Your task to perform on an android device: visit the assistant section in the google photos Image 0: 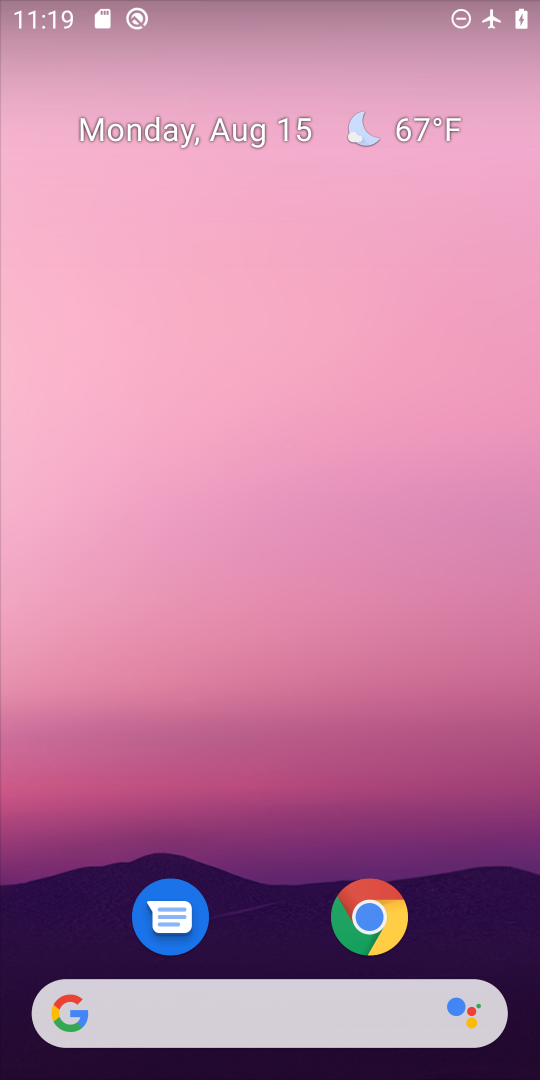
Step 0: drag from (272, 720) to (306, 74)
Your task to perform on an android device: visit the assistant section in the google photos Image 1: 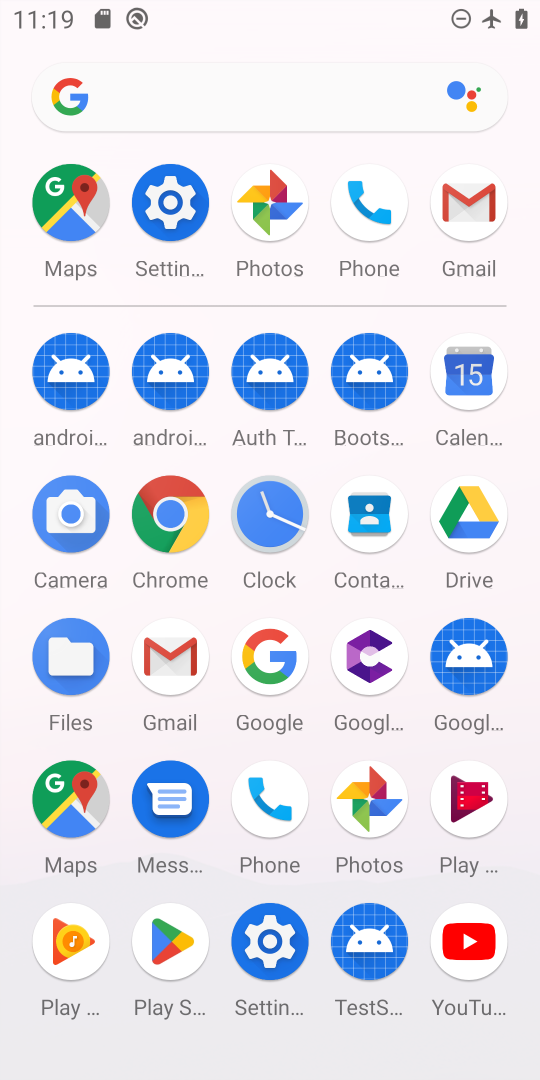
Step 1: click (286, 201)
Your task to perform on an android device: visit the assistant section in the google photos Image 2: 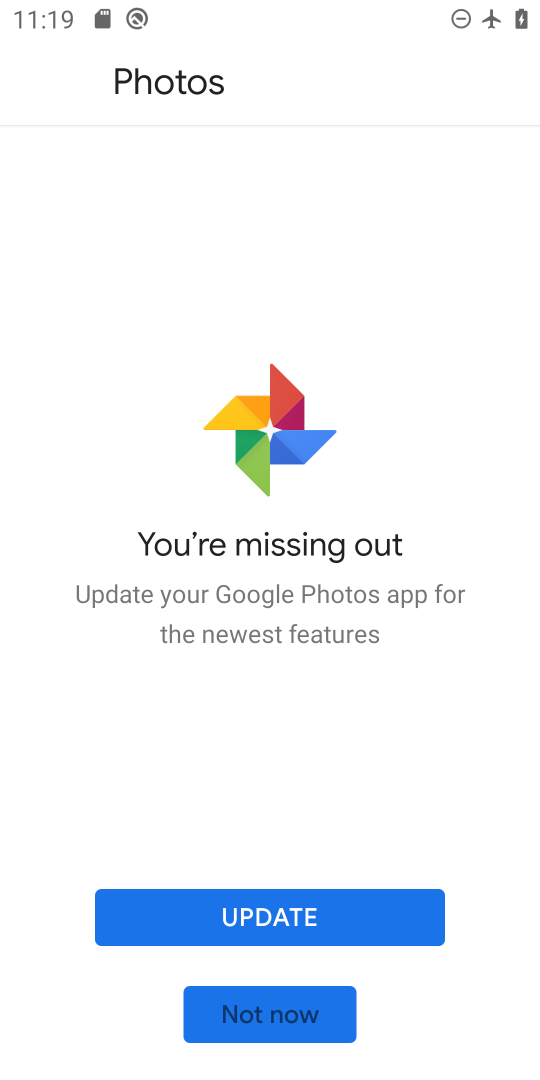
Step 2: click (271, 1016)
Your task to perform on an android device: visit the assistant section in the google photos Image 3: 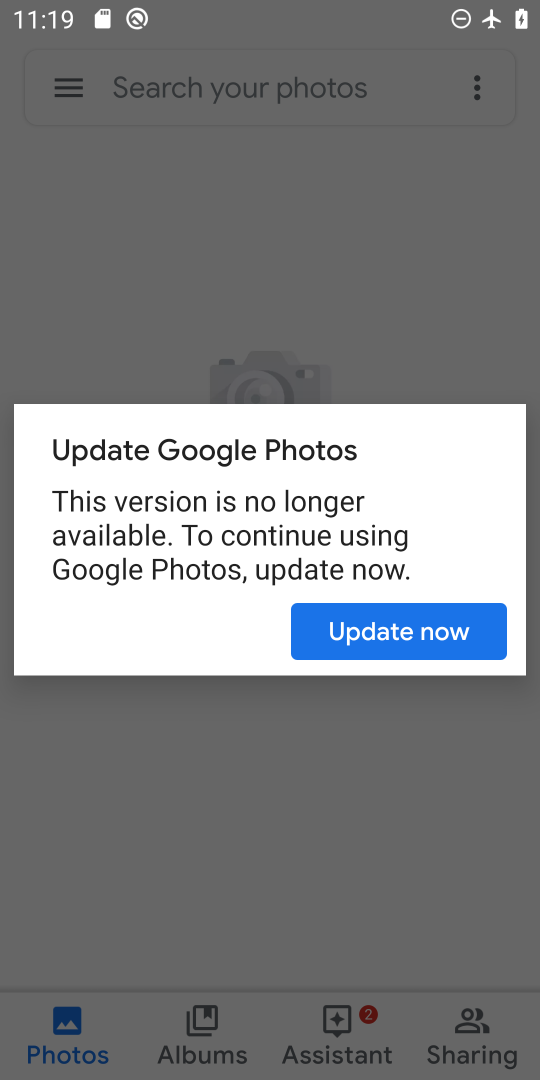
Step 3: click (342, 1028)
Your task to perform on an android device: visit the assistant section in the google photos Image 4: 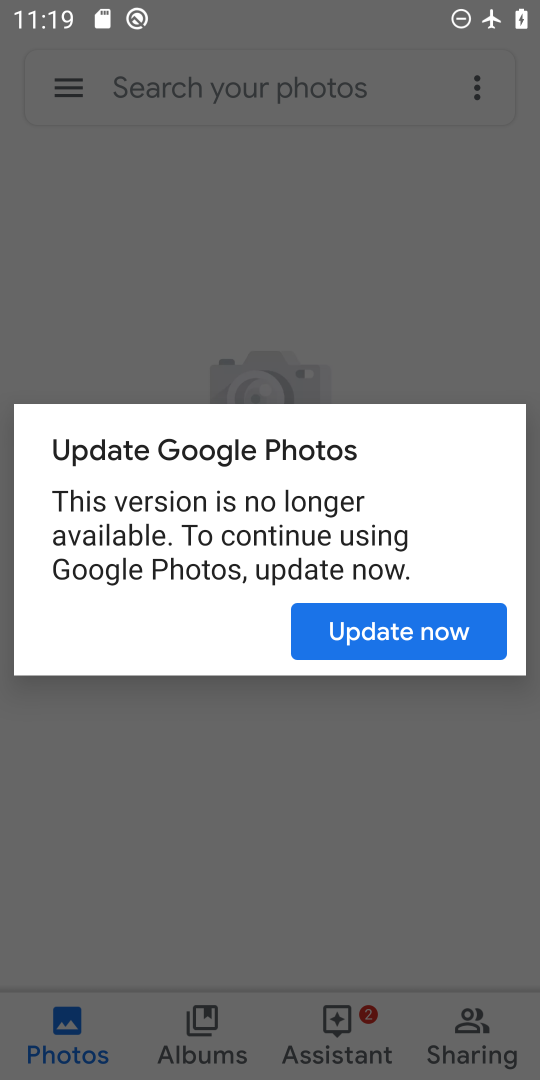
Step 4: click (487, 634)
Your task to perform on an android device: visit the assistant section in the google photos Image 5: 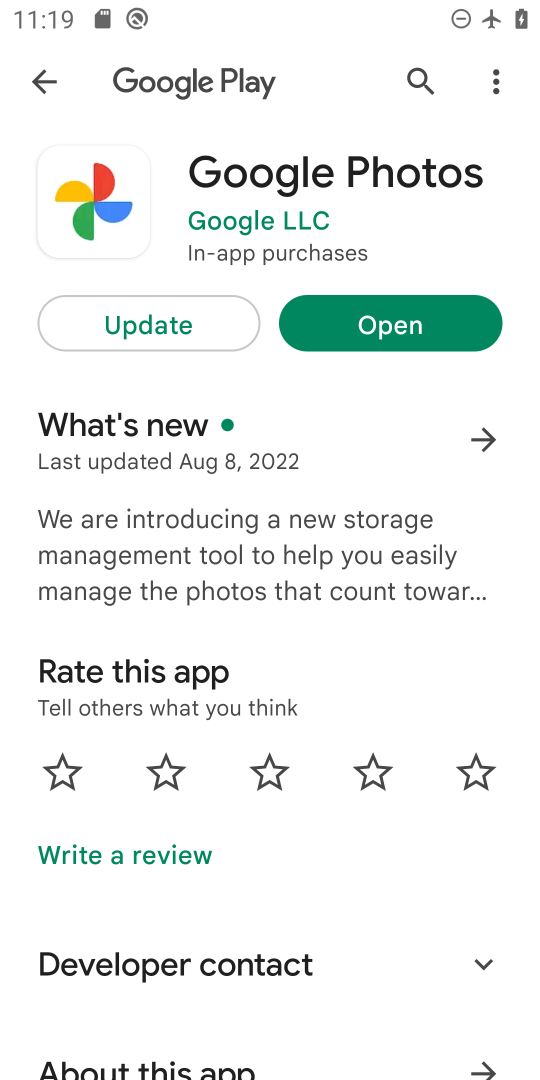
Step 5: click (469, 308)
Your task to perform on an android device: visit the assistant section in the google photos Image 6: 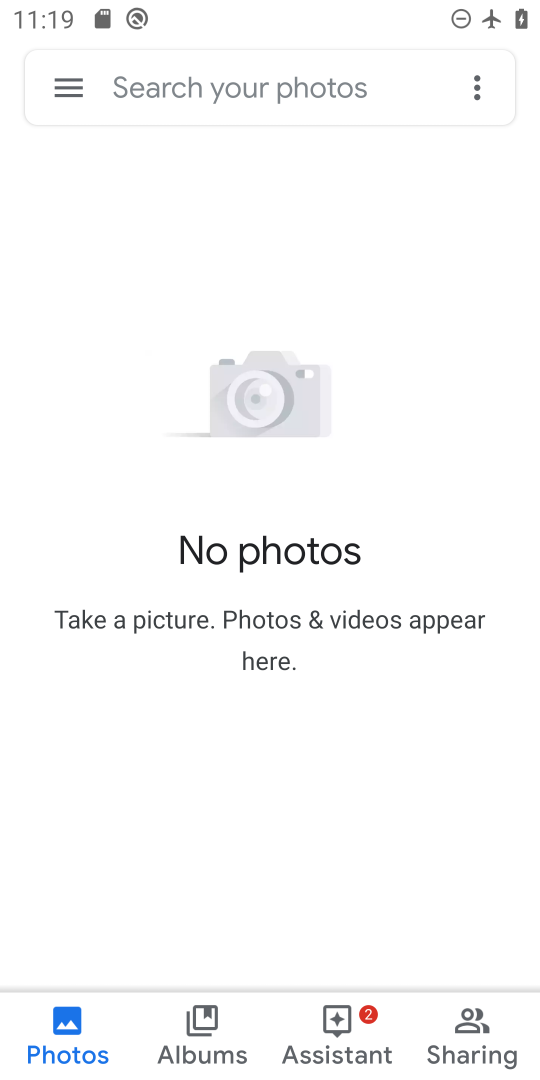
Step 6: click (328, 1027)
Your task to perform on an android device: visit the assistant section in the google photos Image 7: 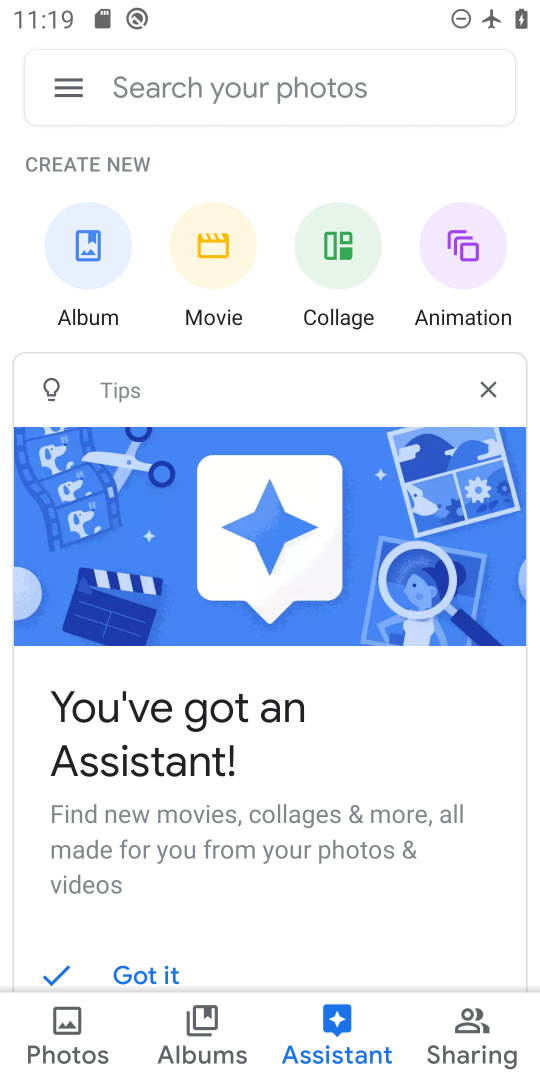
Step 7: task complete